Your task to perform on an android device: move a message to another label in the gmail app Image 0: 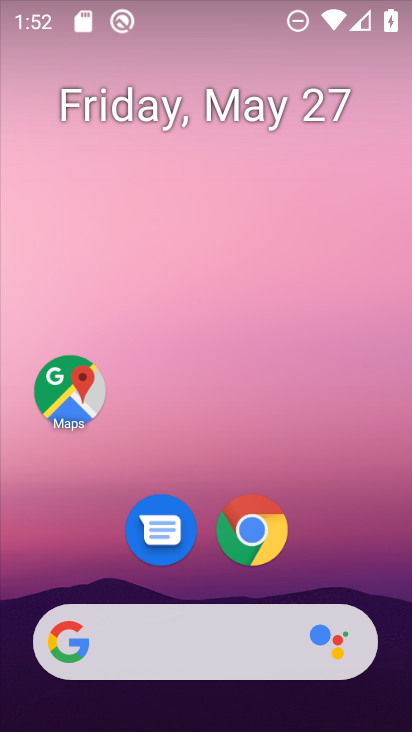
Step 0: drag from (127, 723) to (103, 68)
Your task to perform on an android device: move a message to another label in the gmail app Image 1: 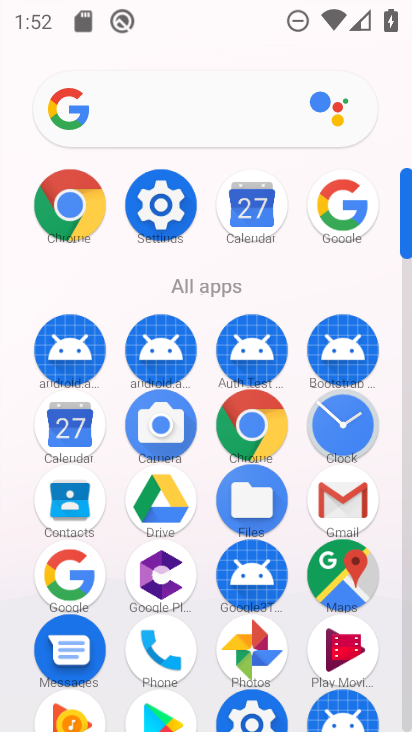
Step 1: click (339, 514)
Your task to perform on an android device: move a message to another label in the gmail app Image 2: 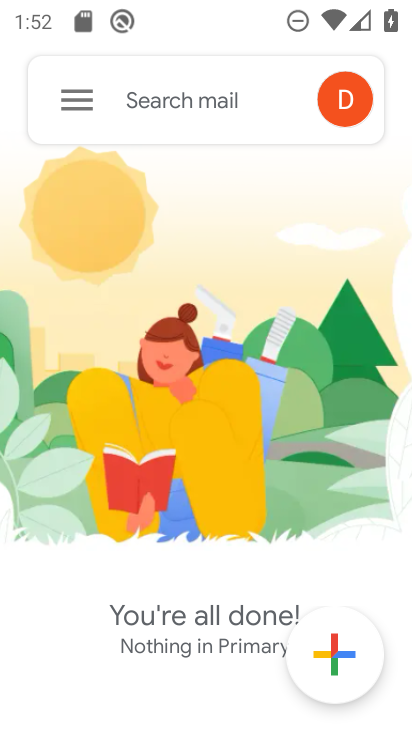
Step 2: click (86, 110)
Your task to perform on an android device: move a message to another label in the gmail app Image 3: 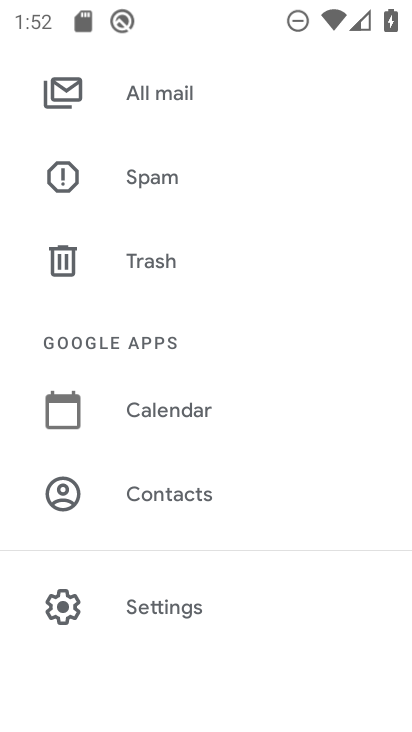
Step 3: click (178, 104)
Your task to perform on an android device: move a message to another label in the gmail app Image 4: 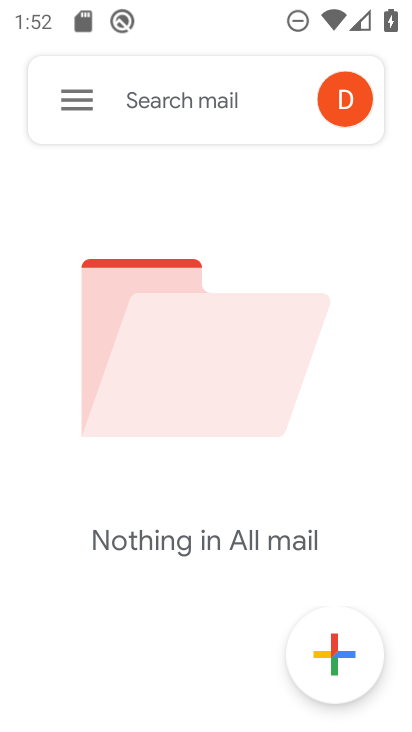
Step 4: click (52, 104)
Your task to perform on an android device: move a message to another label in the gmail app Image 5: 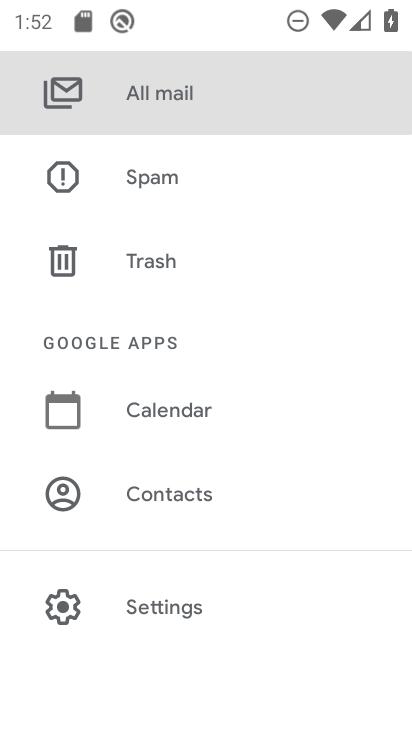
Step 5: drag from (266, 224) to (234, 704)
Your task to perform on an android device: move a message to another label in the gmail app Image 6: 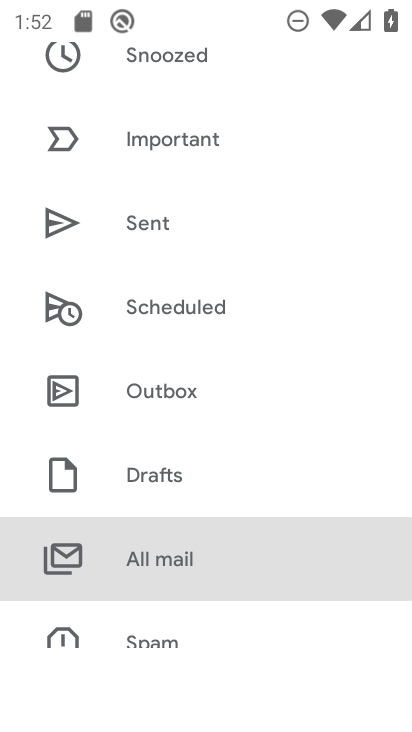
Step 6: drag from (195, 118) to (202, 627)
Your task to perform on an android device: move a message to another label in the gmail app Image 7: 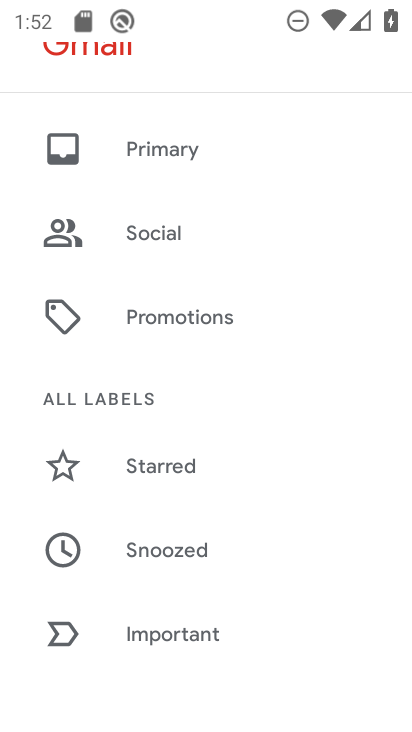
Step 7: click (162, 154)
Your task to perform on an android device: move a message to another label in the gmail app Image 8: 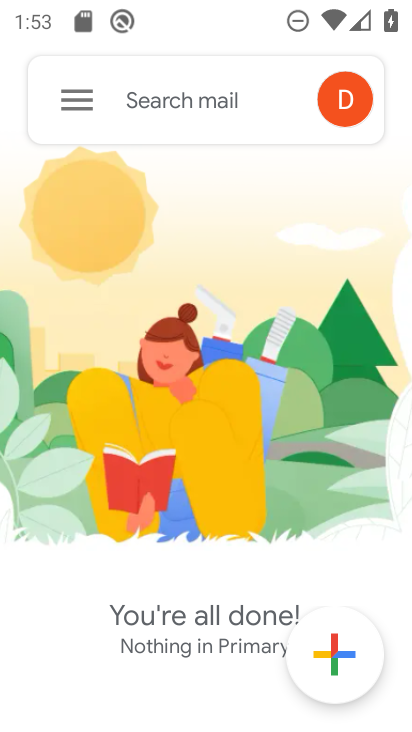
Step 8: task complete